Your task to perform on an android device: check google app version Image 0: 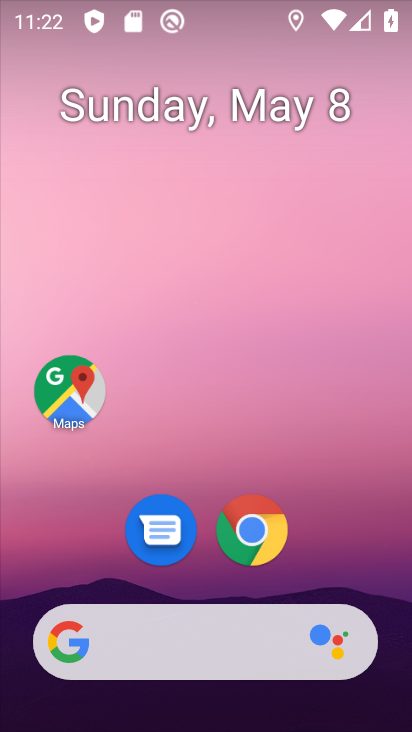
Step 0: drag from (277, 643) to (246, 0)
Your task to perform on an android device: check google app version Image 1: 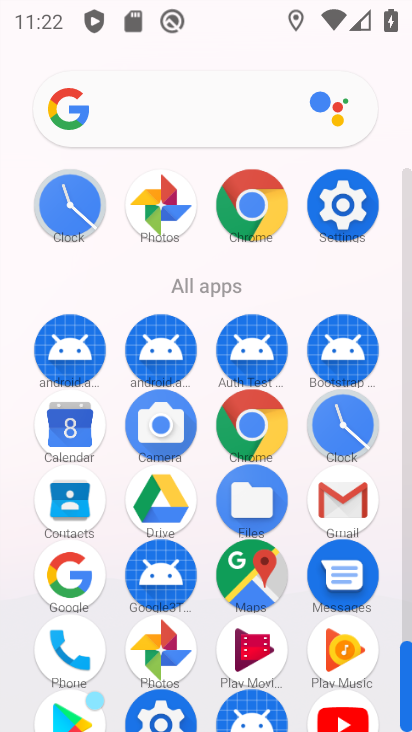
Step 1: drag from (278, 680) to (297, 319)
Your task to perform on an android device: check google app version Image 2: 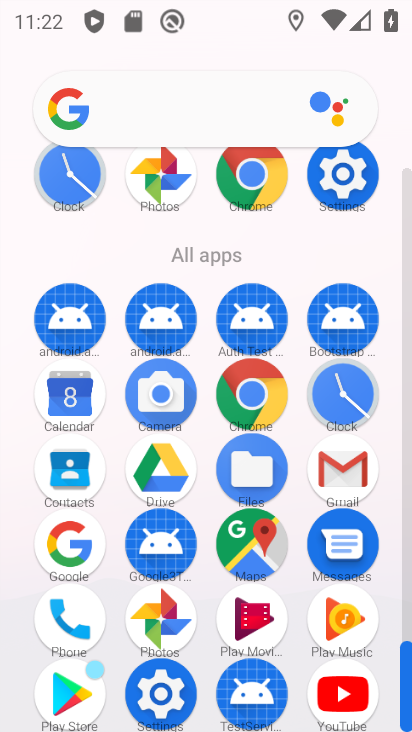
Step 2: click (166, 696)
Your task to perform on an android device: check google app version Image 3: 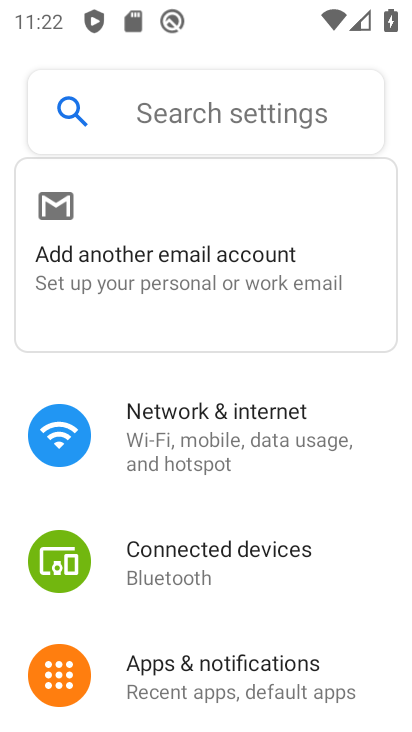
Step 3: press home button
Your task to perform on an android device: check google app version Image 4: 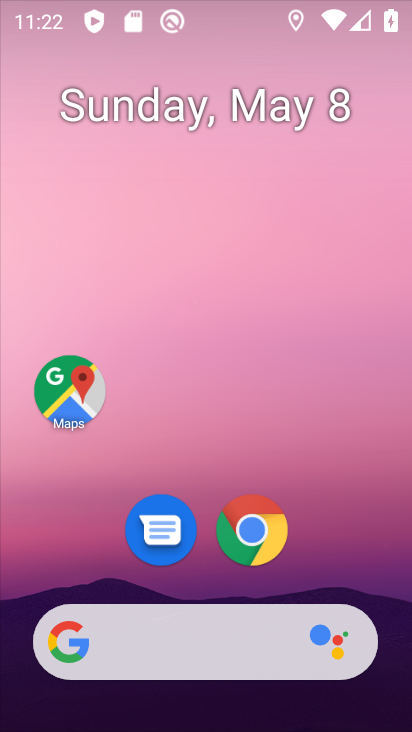
Step 4: drag from (277, 718) to (308, 2)
Your task to perform on an android device: check google app version Image 5: 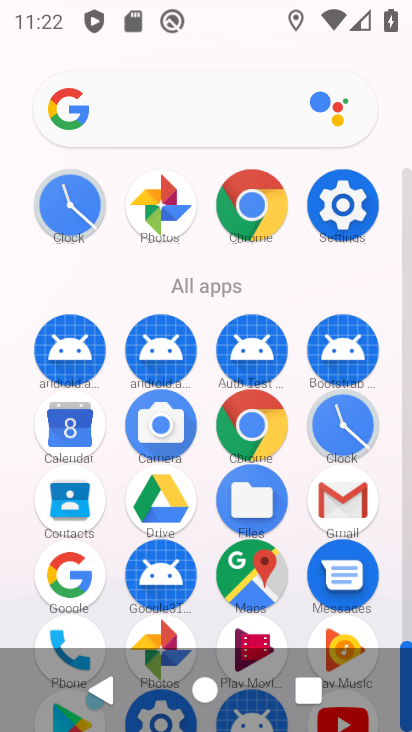
Step 5: click (259, 427)
Your task to perform on an android device: check google app version Image 6: 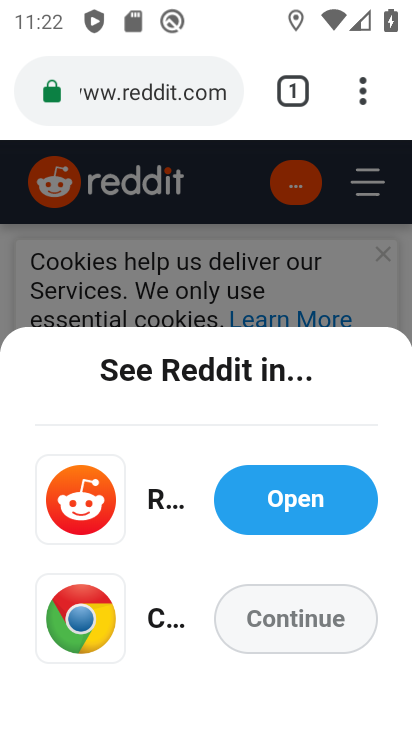
Step 6: drag from (369, 86) to (231, 569)
Your task to perform on an android device: check google app version Image 7: 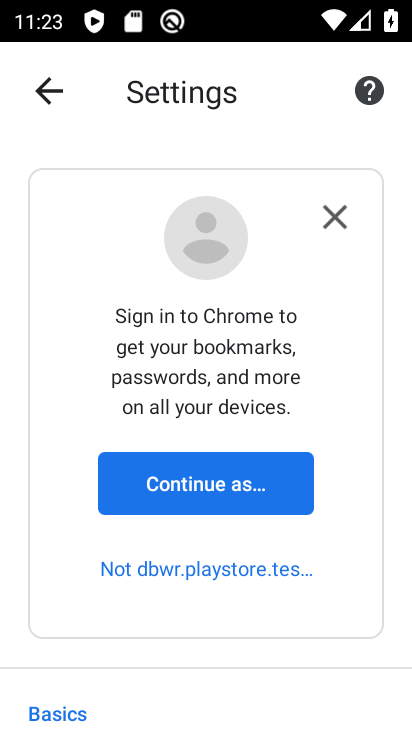
Step 7: press back button
Your task to perform on an android device: check google app version Image 8: 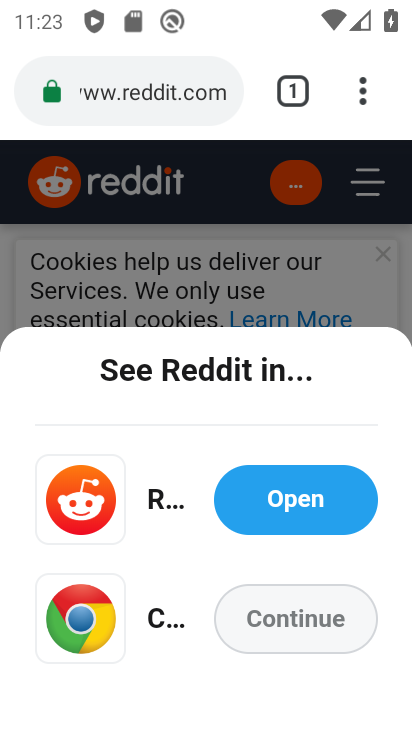
Step 8: drag from (370, 88) to (205, 646)
Your task to perform on an android device: check google app version Image 9: 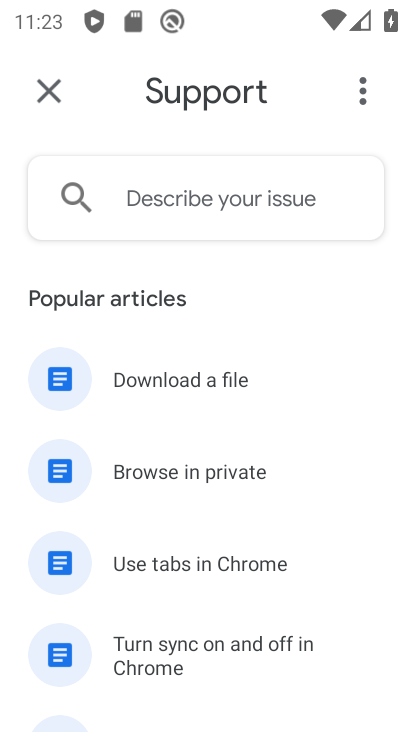
Step 9: drag from (279, 637) to (268, 306)
Your task to perform on an android device: check google app version Image 10: 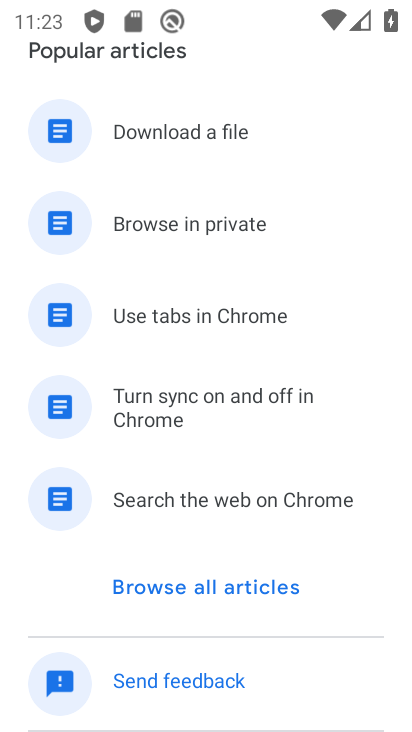
Step 10: drag from (344, 141) to (323, 626)
Your task to perform on an android device: check google app version Image 11: 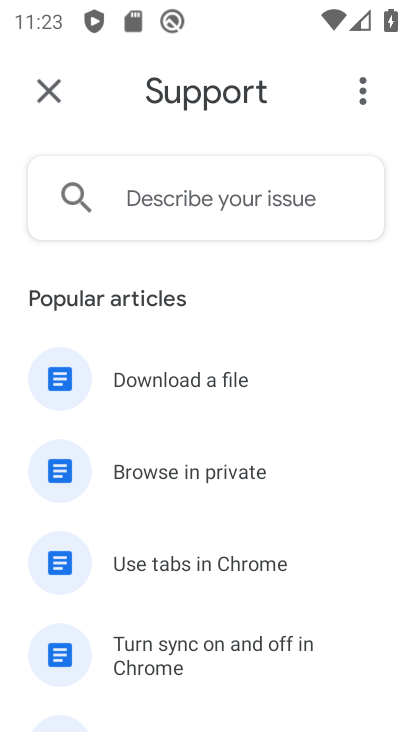
Step 11: click (358, 93)
Your task to perform on an android device: check google app version Image 12: 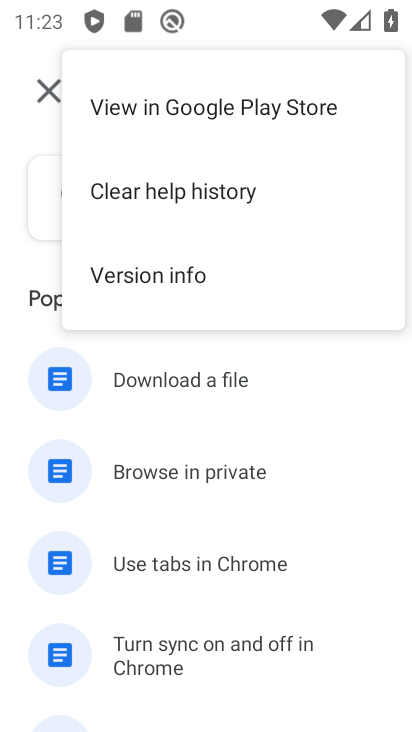
Step 12: click (212, 286)
Your task to perform on an android device: check google app version Image 13: 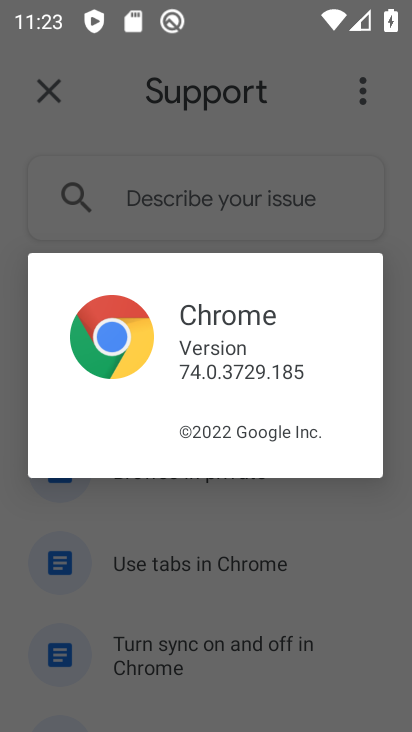
Step 13: task complete